Your task to perform on an android device: Open the calendar app, open the side menu, and click the "Day" option Image 0: 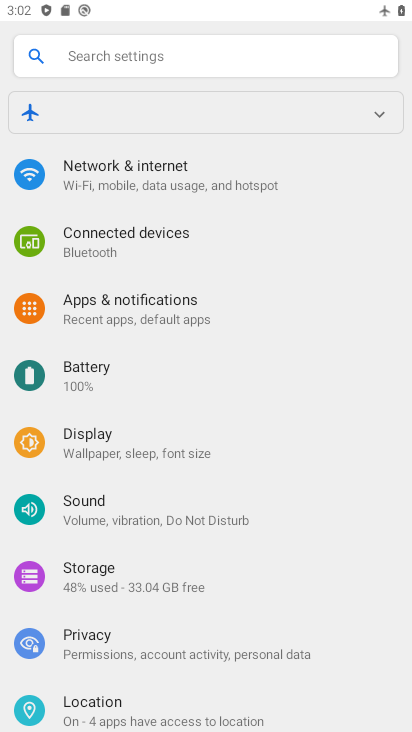
Step 0: press home button
Your task to perform on an android device: Open the calendar app, open the side menu, and click the "Day" option Image 1: 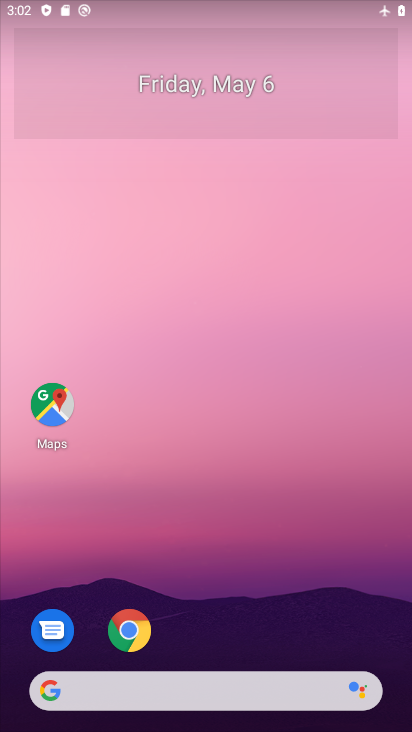
Step 1: drag from (237, 642) to (309, 38)
Your task to perform on an android device: Open the calendar app, open the side menu, and click the "Day" option Image 2: 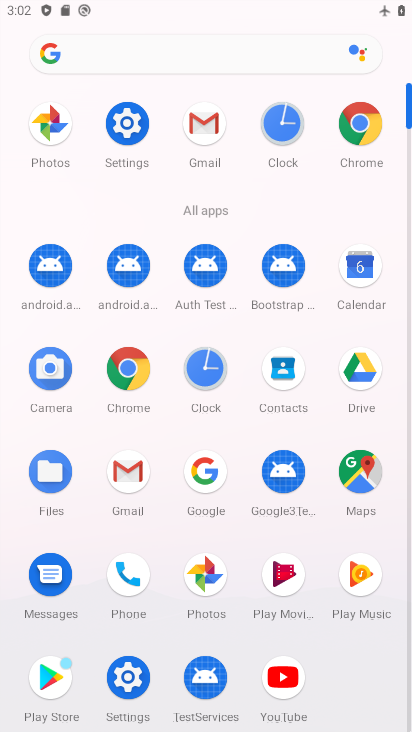
Step 2: click (355, 266)
Your task to perform on an android device: Open the calendar app, open the side menu, and click the "Day" option Image 3: 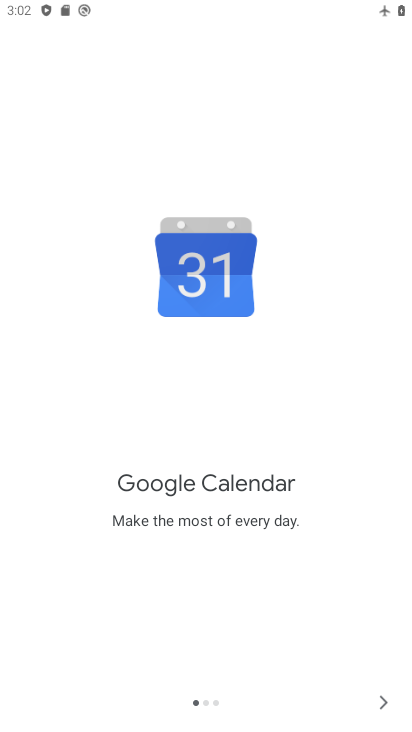
Step 3: click (384, 696)
Your task to perform on an android device: Open the calendar app, open the side menu, and click the "Day" option Image 4: 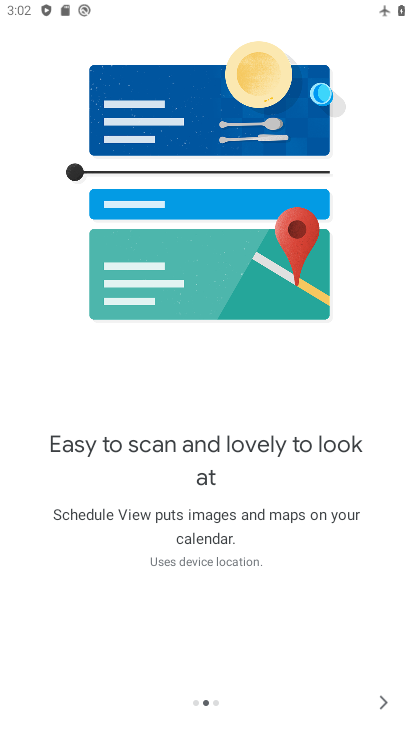
Step 4: click (384, 696)
Your task to perform on an android device: Open the calendar app, open the side menu, and click the "Day" option Image 5: 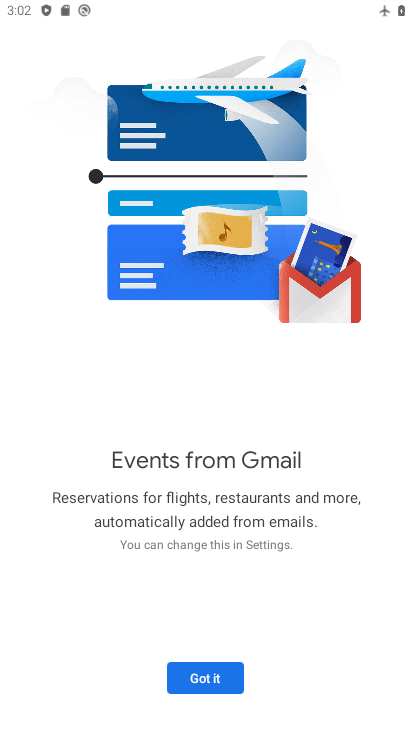
Step 5: click (194, 678)
Your task to perform on an android device: Open the calendar app, open the side menu, and click the "Day" option Image 6: 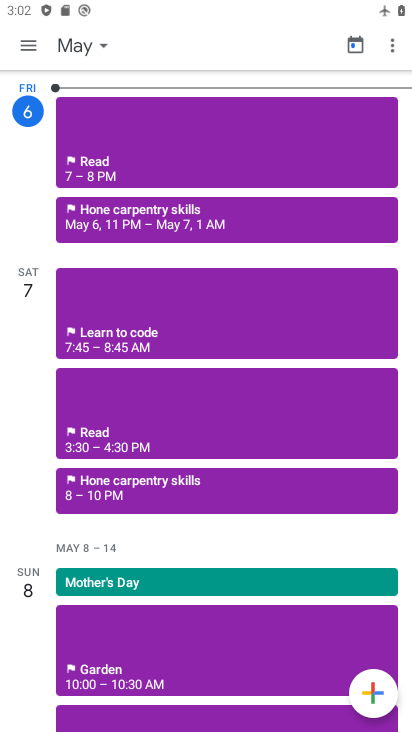
Step 6: click (39, 47)
Your task to perform on an android device: Open the calendar app, open the side menu, and click the "Day" option Image 7: 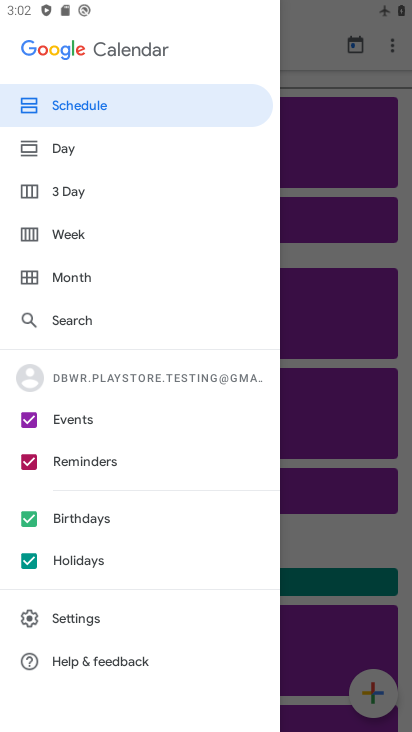
Step 7: click (66, 158)
Your task to perform on an android device: Open the calendar app, open the side menu, and click the "Day" option Image 8: 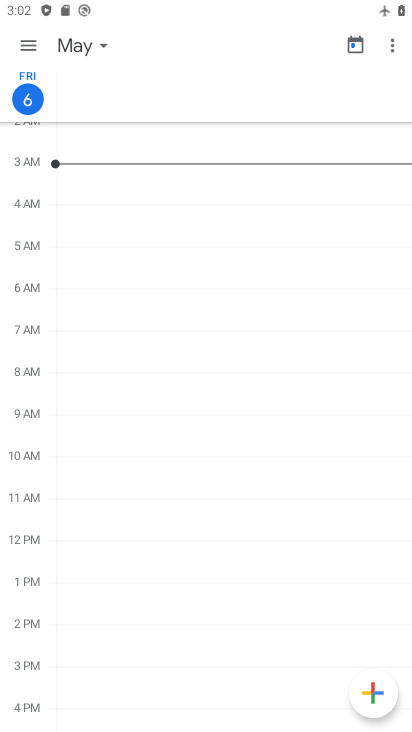
Step 8: task complete